Your task to perform on an android device: choose inbox layout in the gmail app Image 0: 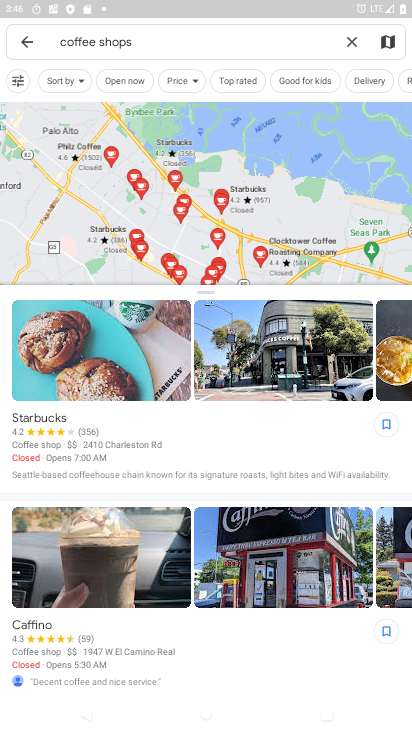
Step 0: press home button
Your task to perform on an android device: choose inbox layout in the gmail app Image 1: 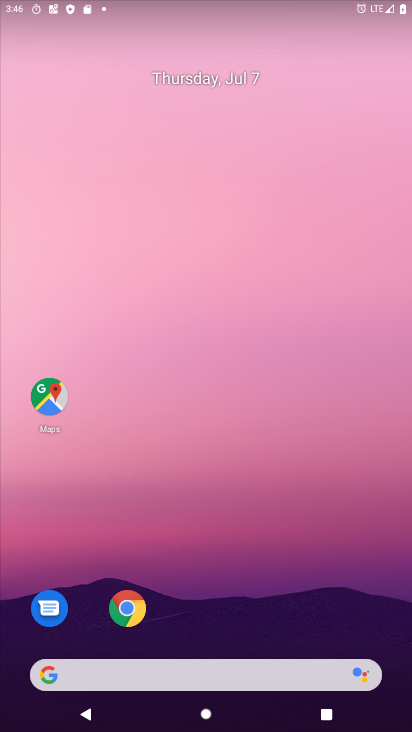
Step 1: drag from (249, 728) to (245, 167)
Your task to perform on an android device: choose inbox layout in the gmail app Image 2: 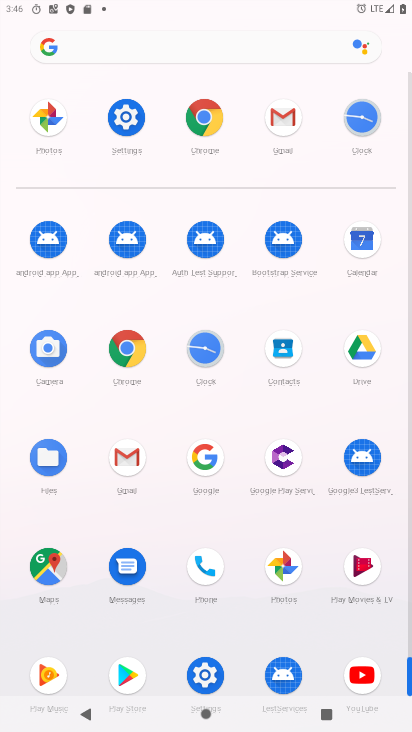
Step 2: click (130, 455)
Your task to perform on an android device: choose inbox layout in the gmail app Image 3: 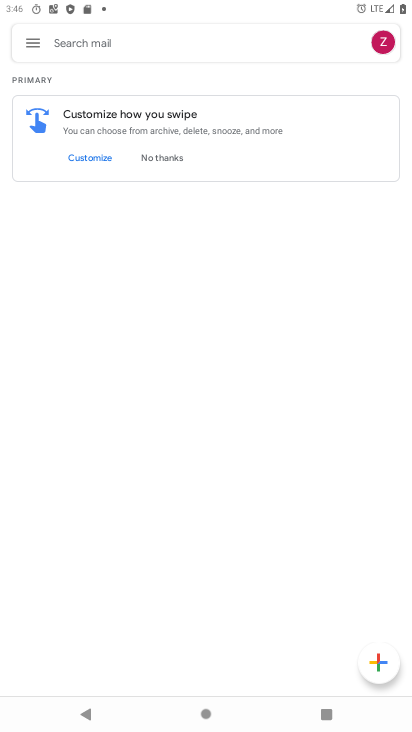
Step 3: click (36, 41)
Your task to perform on an android device: choose inbox layout in the gmail app Image 4: 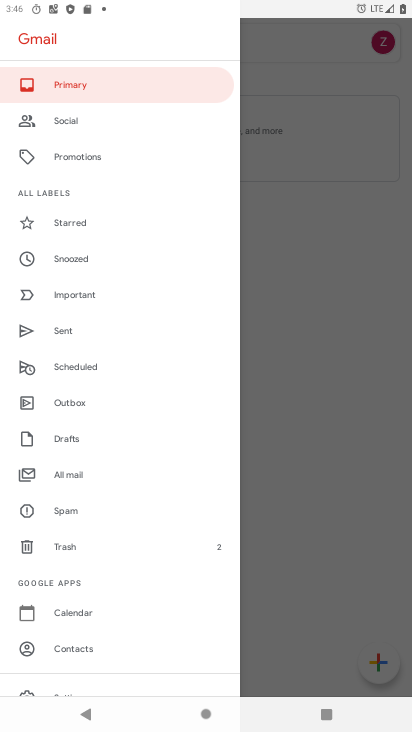
Step 4: drag from (72, 638) to (101, 249)
Your task to perform on an android device: choose inbox layout in the gmail app Image 5: 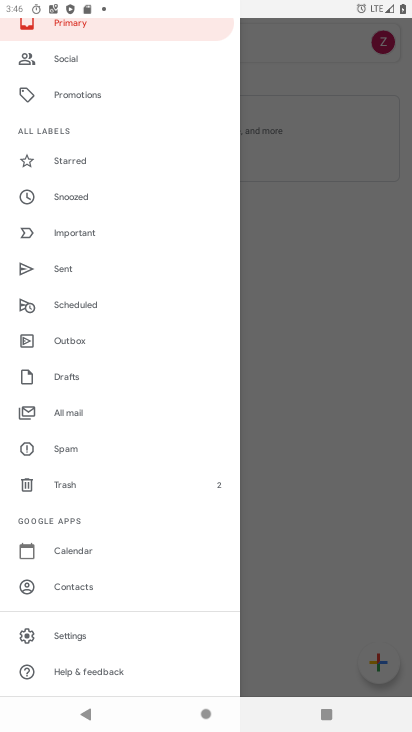
Step 5: click (61, 636)
Your task to perform on an android device: choose inbox layout in the gmail app Image 6: 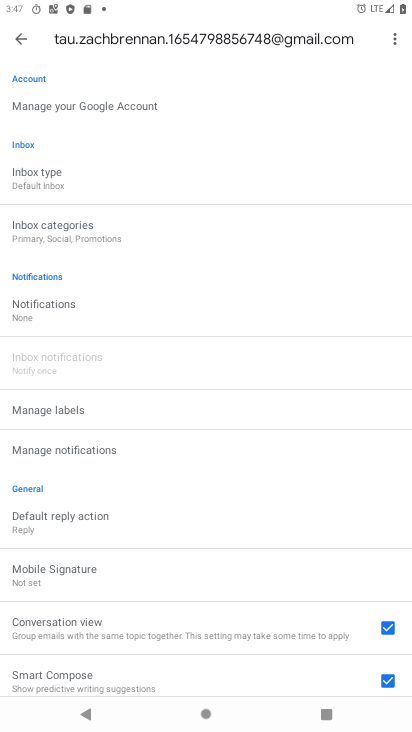
Step 6: click (44, 175)
Your task to perform on an android device: choose inbox layout in the gmail app Image 7: 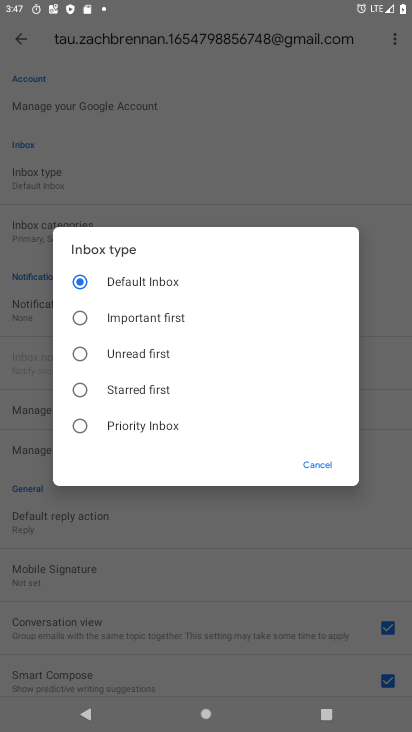
Step 7: click (82, 422)
Your task to perform on an android device: choose inbox layout in the gmail app Image 8: 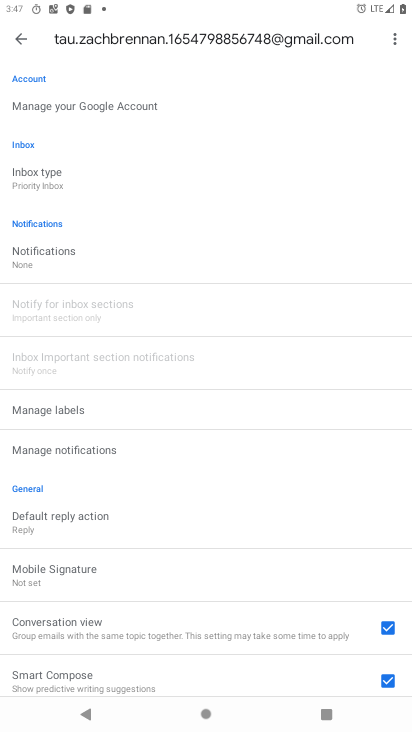
Step 8: task complete